Your task to perform on an android device: visit the assistant section in the google photos Image 0: 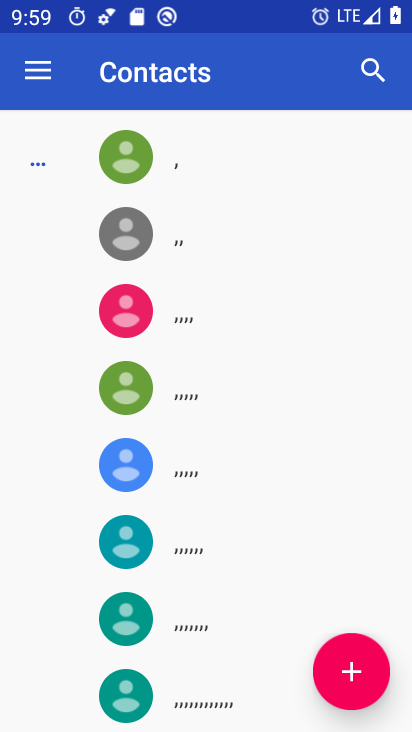
Step 0: press home button
Your task to perform on an android device: visit the assistant section in the google photos Image 1: 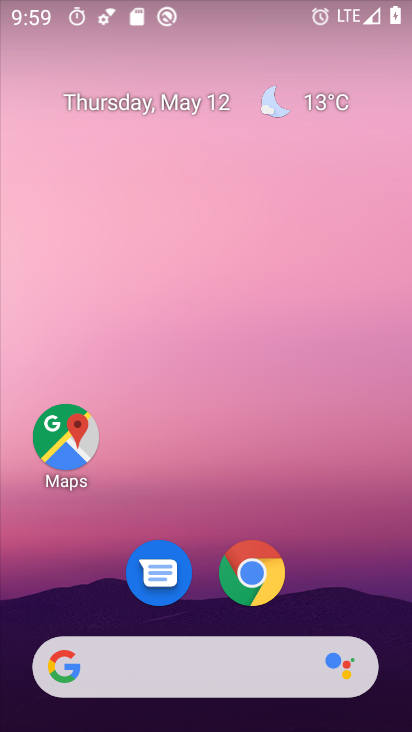
Step 1: drag from (402, 678) to (398, 315)
Your task to perform on an android device: visit the assistant section in the google photos Image 2: 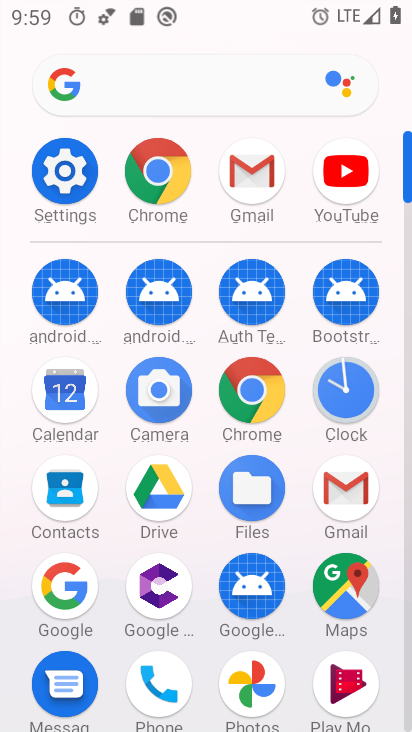
Step 2: click (253, 679)
Your task to perform on an android device: visit the assistant section in the google photos Image 3: 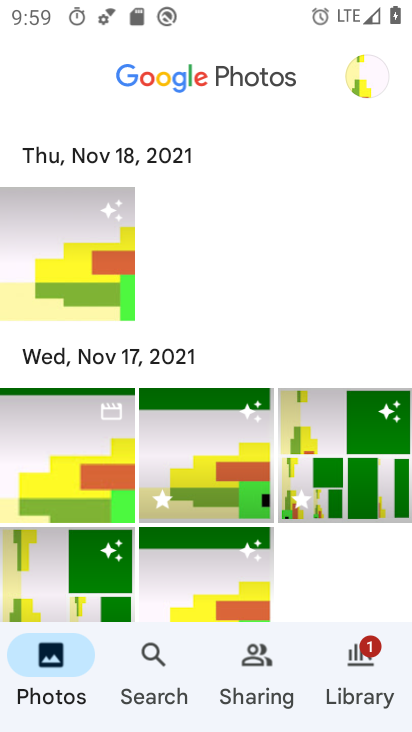
Step 3: task complete